Your task to perform on an android device: Show me popular videos on Youtube Image 0: 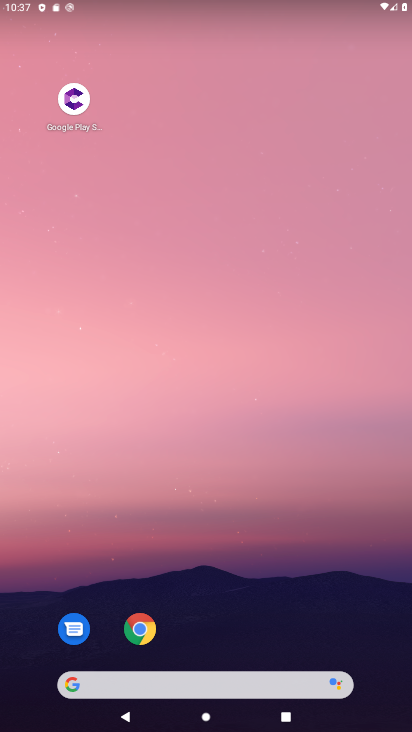
Step 0: press home button
Your task to perform on an android device: Show me popular videos on Youtube Image 1: 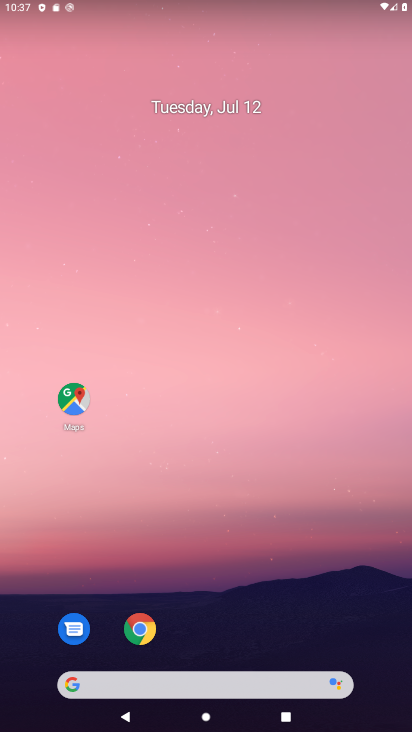
Step 1: drag from (280, 545) to (217, 200)
Your task to perform on an android device: Show me popular videos on Youtube Image 2: 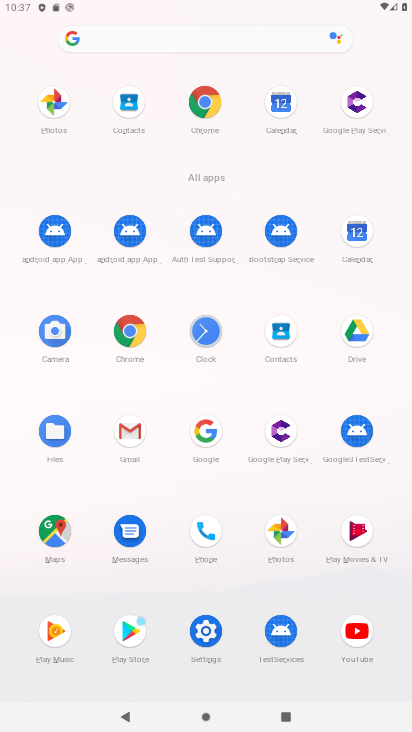
Step 2: click (354, 629)
Your task to perform on an android device: Show me popular videos on Youtube Image 3: 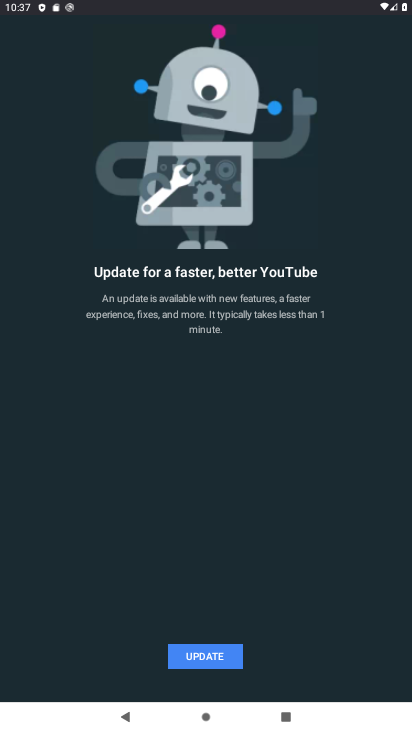
Step 3: click (207, 658)
Your task to perform on an android device: Show me popular videos on Youtube Image 4: 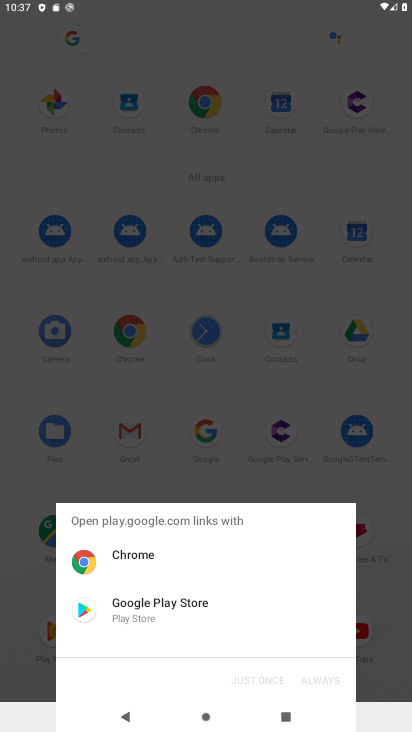
Step 4: click (165, 613)
Your task to perform on an android device: Show me popular videos on Youtube Image 5: 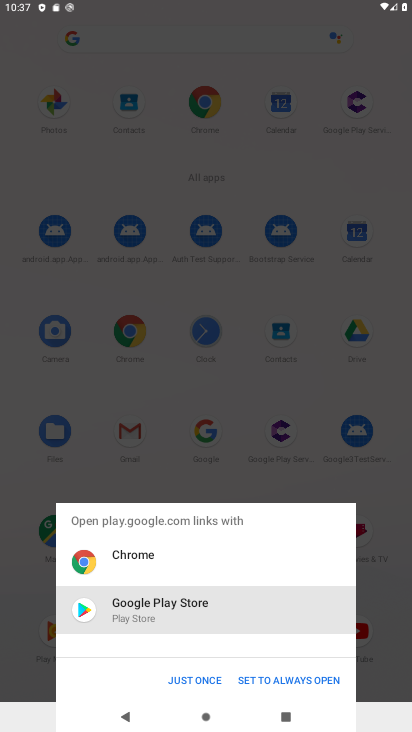
Step 5: click (188, 680)
Your task to perform on an android device: Show me popular videos on Youtube Image 6: 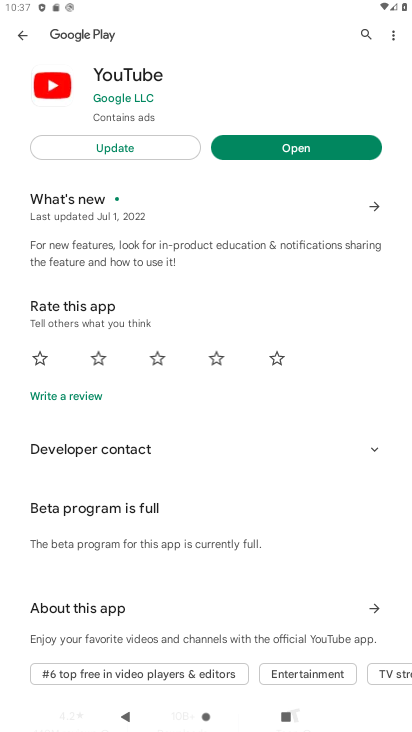
Step 6: click (150, 149)
Your task to perform on an android device: Show me popular videos on Youtube Image 7: 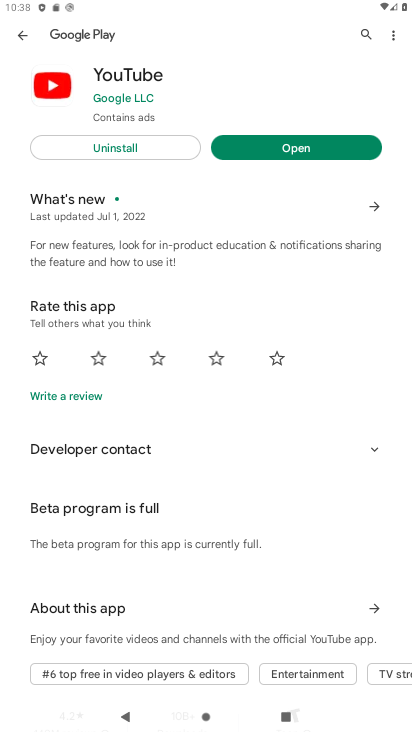
Step 7: click (265, 143)
Your task to perform on an android device: Show me popular videos on Youtube Image 8: 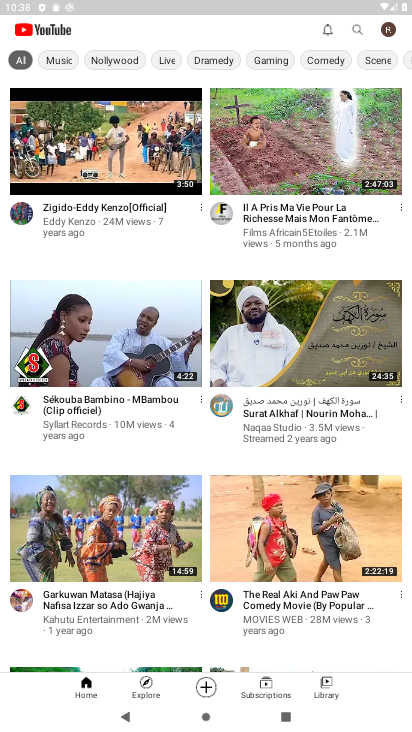
Step 8: click (142, 689)
Your task to perform on an android device: Show me popular videos on Youtube Image 9: 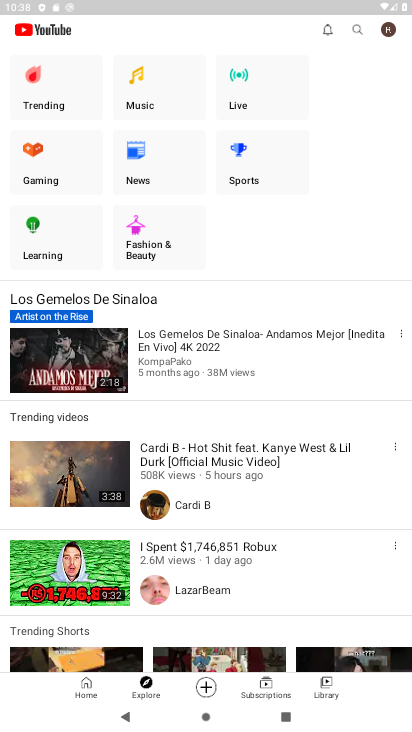
Step 9: task complete